Your task to perform on an android device: all mails in gmail Image 0: 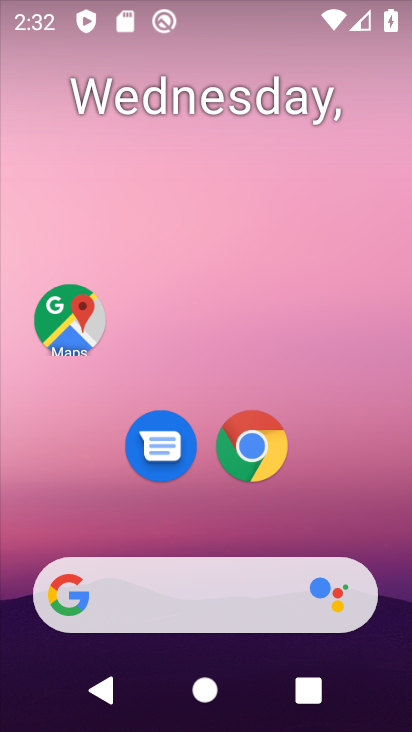
Step 0: click (368, 94)
Your task to perform on an android device: all mails in gmail Image 1: 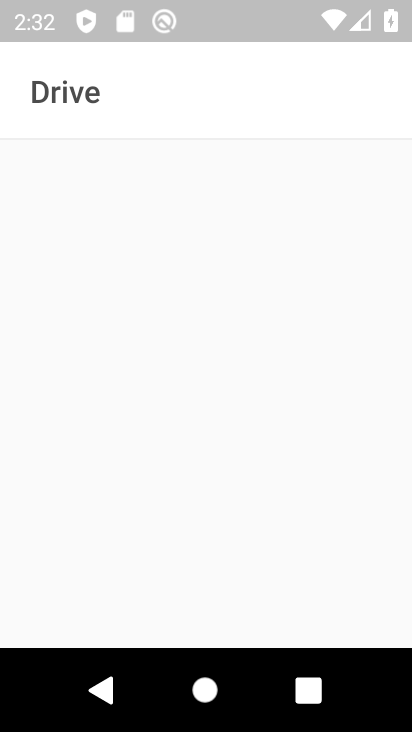
Step 1: press home button
Your task to perform on an android device: all mails in gmail Image 2: 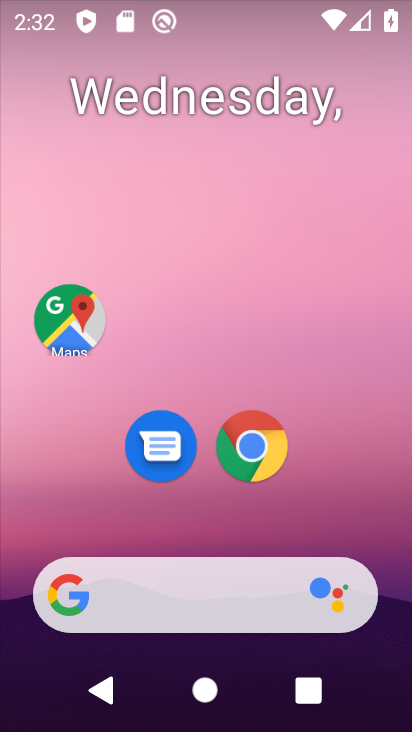
Step 2: drag from (333, 528) to (325, 6)
Your task to perform on an android device: all mails in gmail Image 3: 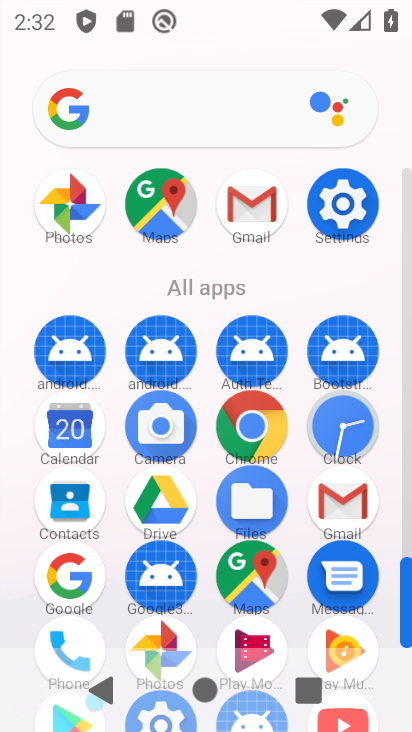
Step 3: click (249, 209)
Your task to perform on an android device: all mails in gmail Image 4: 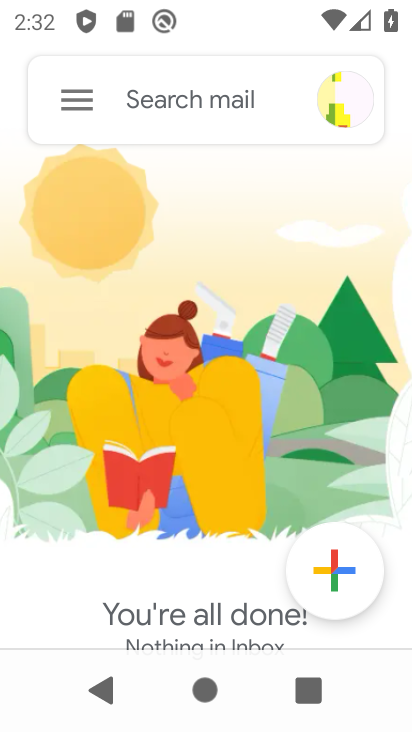
Step 4: click (76, 109)
Your task to perform on an android device: all mails in gmail Image 5: 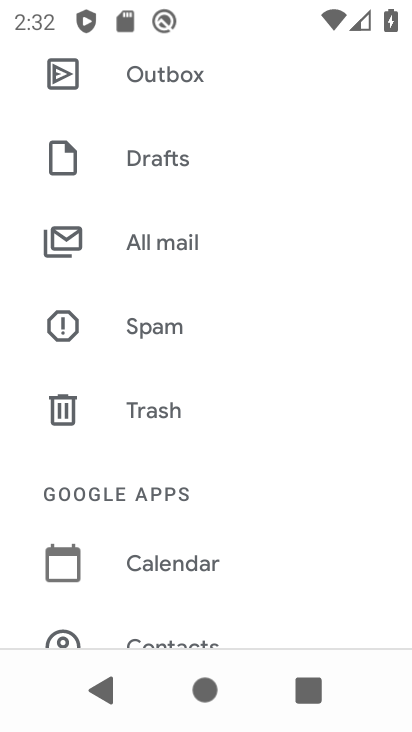
Step 5: click (174, 255)
Your task to perform on an android device: all mails in gmail Image 6: 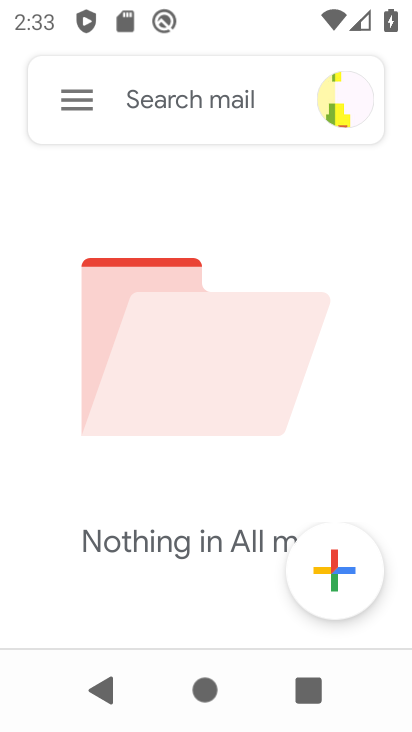
Step 6: task complete